Your task to perform on an android device: Open the stopwatch Image 0: 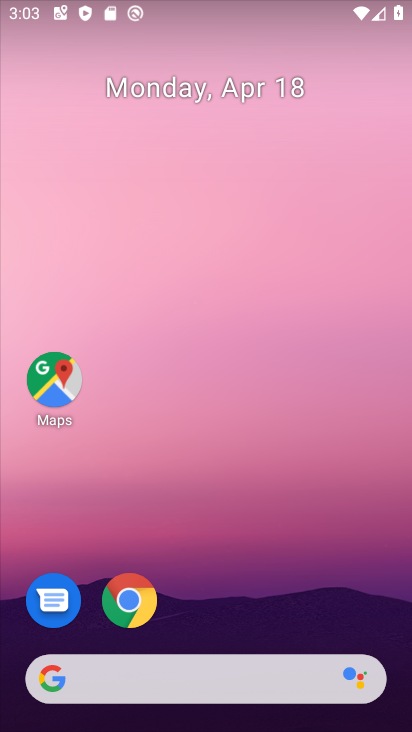
Step 0: drag from (186, 615) to (286, 1)
Your task to perform on an android device: Open the stopwatch Image 1: 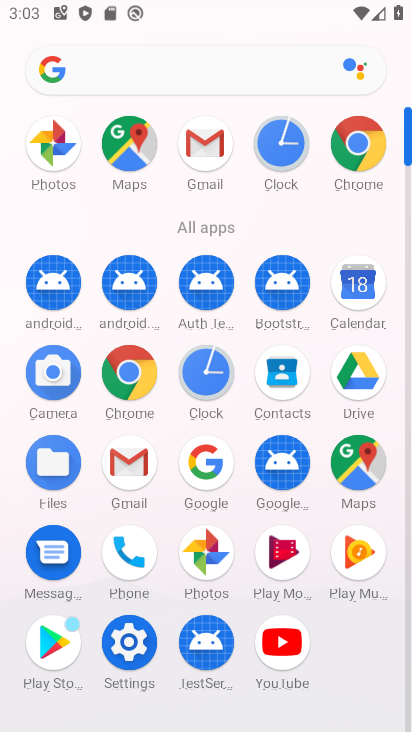
Step 1: click (205, 381)
Your task to perform on an android device: Open the stopwatch Image 2: 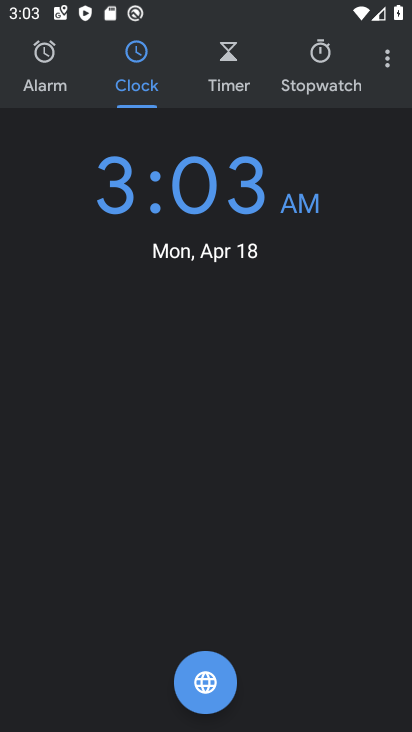
Step 2: click (324, 80)
Your task to perform on an android device: Open the stopwatch Image 3: 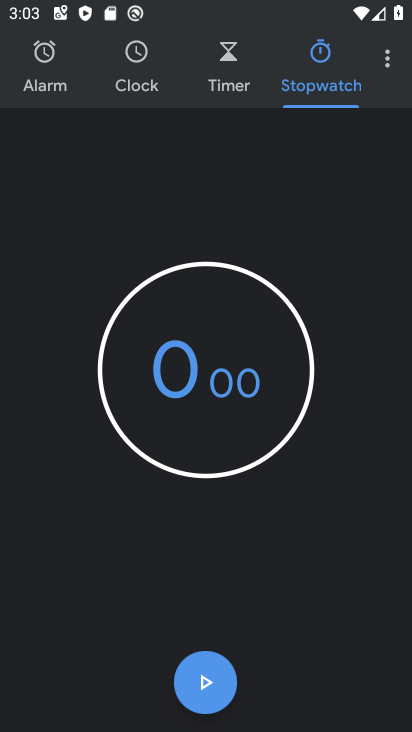
Step 3: task complete